Your task to perform on an android device: turn on translation in the chrome app Image 0: 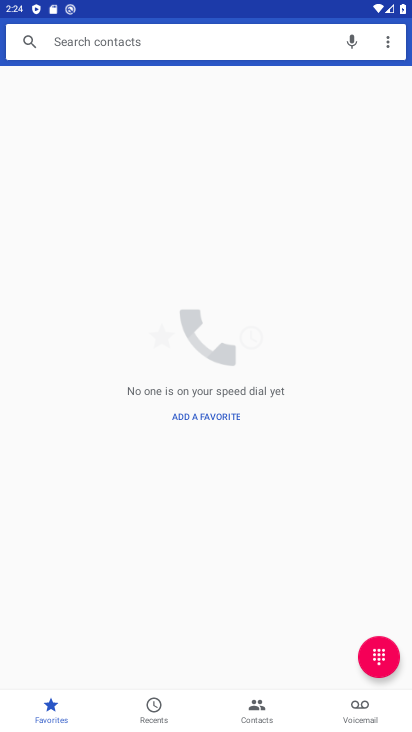
Step 0: press back button
Your task to perform on an android device: turn on translation in the chrome app Image 1: 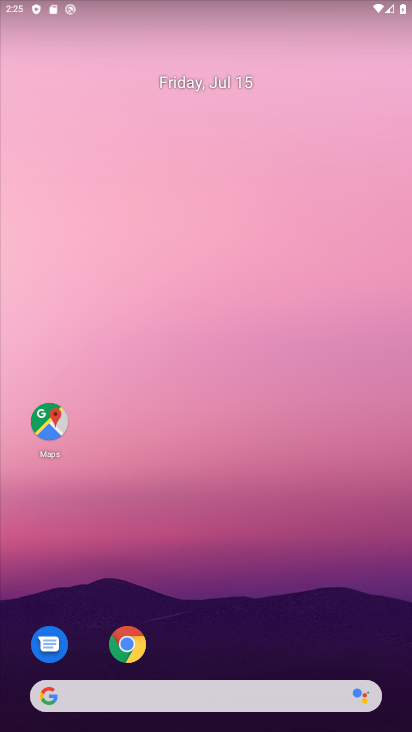
Step 1: click (130, 649)
Your task to perform on an android device: turn on translation in the chrome app Image 2: 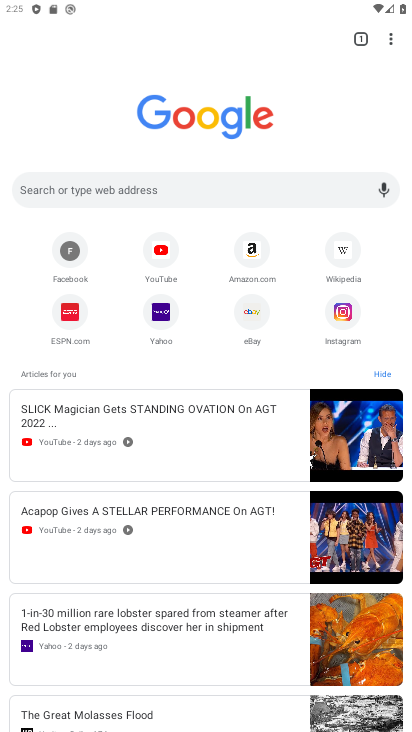
Step 2: drag from (393, 34) to (261, 326)
Your task to perform on an android device: turn on translation in the chrome app Image 3: 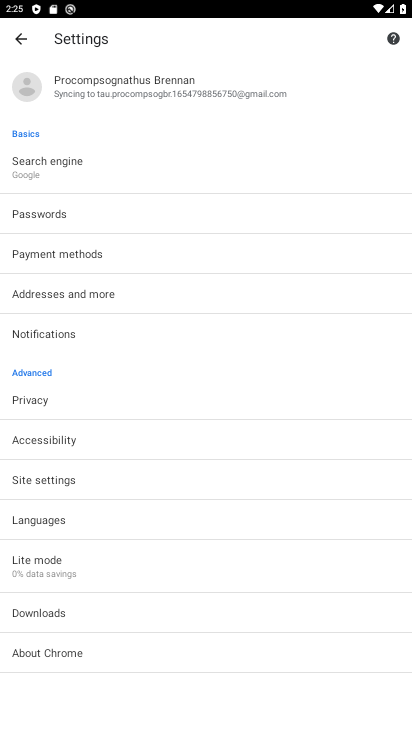
Step 3: click (25, 525)
Your task to perform on an android device: turn on translation in the chrome app Image 4: 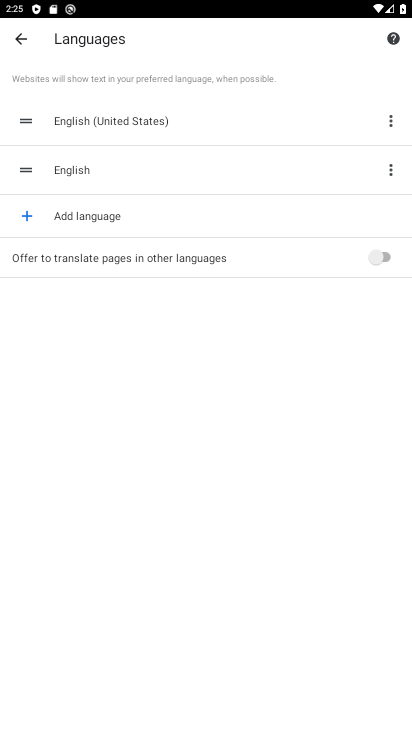
Step 4: click (377, 255)
Your task to perform on an android device: turn on translation in the chrome app Image 5: 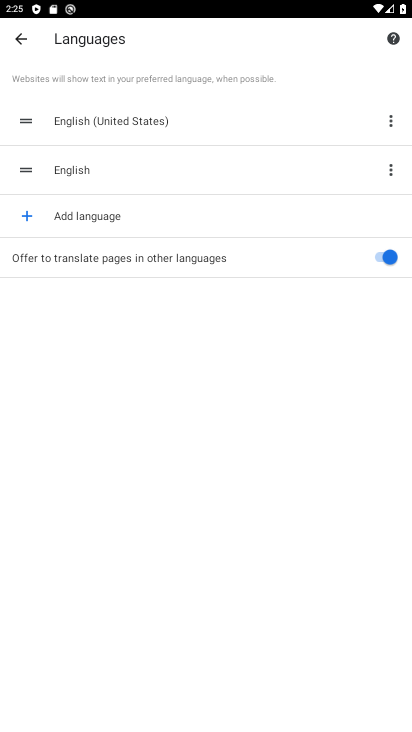
Step 5: task complete